Your task to perform on an android device: toggle improve location accuracy Image 0: 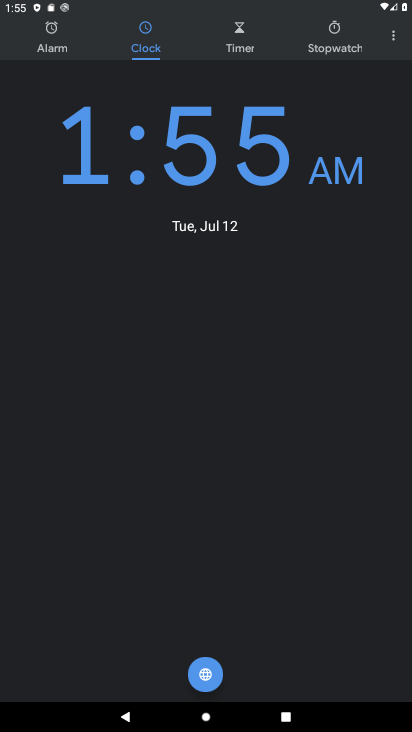
Step 0: press home button
Your task to perform on an android device: toggle improve location accuracy Image 1: 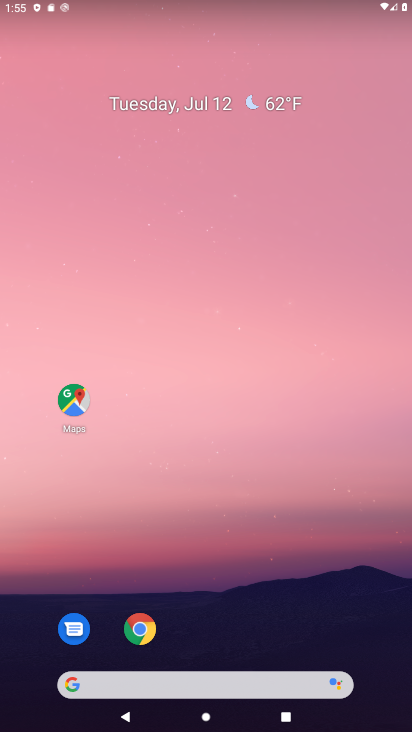
Step 1: drag from (210, 652) to (179, 33)
Your task to perform on an android device: toggle improve location accuracy Image 2: 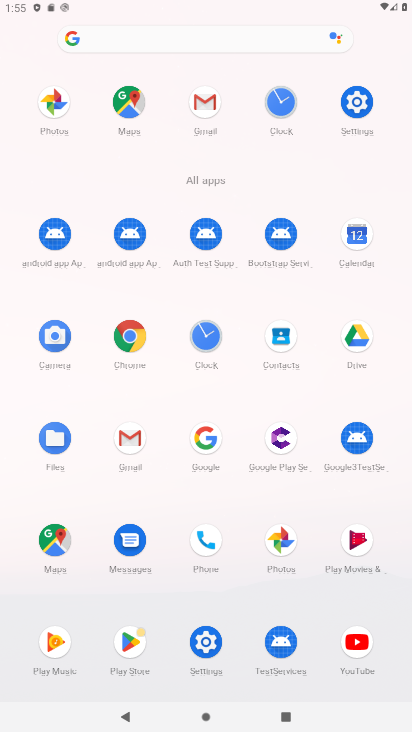
Step 2: click (356, 96)
Your task to perform on an android device: toggle improve location accuracy Image 3: 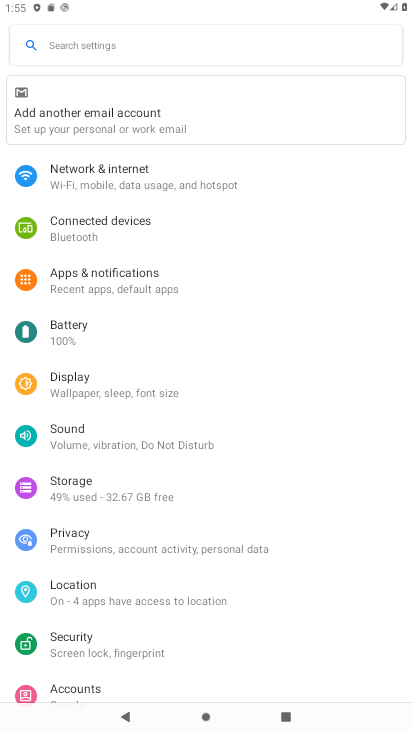
Step 3: click (108, 585)
Your task to perform on an android device: toggle improve location accuracy Image 4: 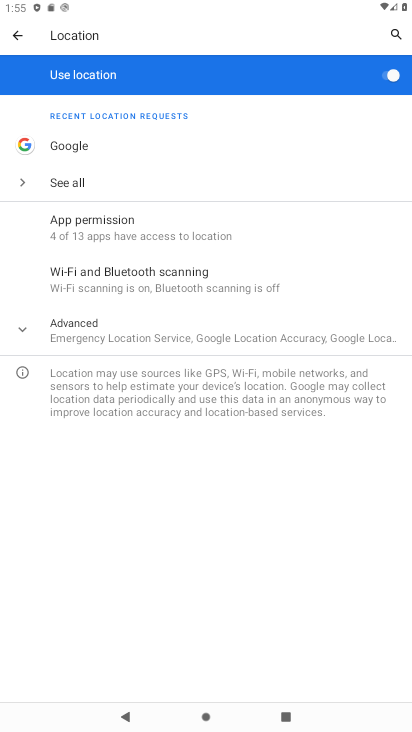
Step 4: click (26, 330)
Your task to perform on an android device: toggle improve location accuracy Image 5: 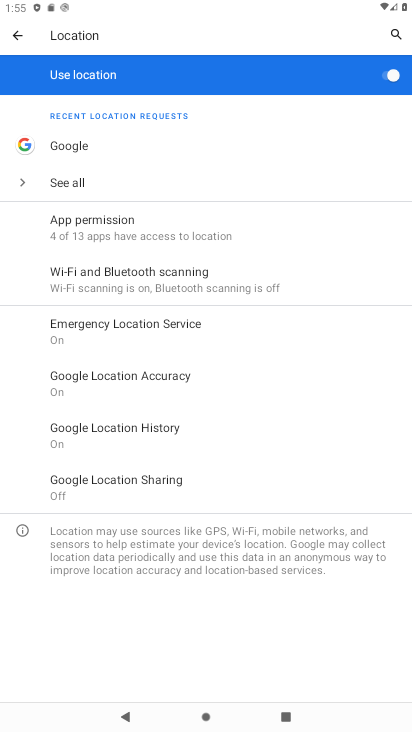
Step 5: click (149, 383)
Your task to perform on an android device: toggle improve location accuracy Image 6: 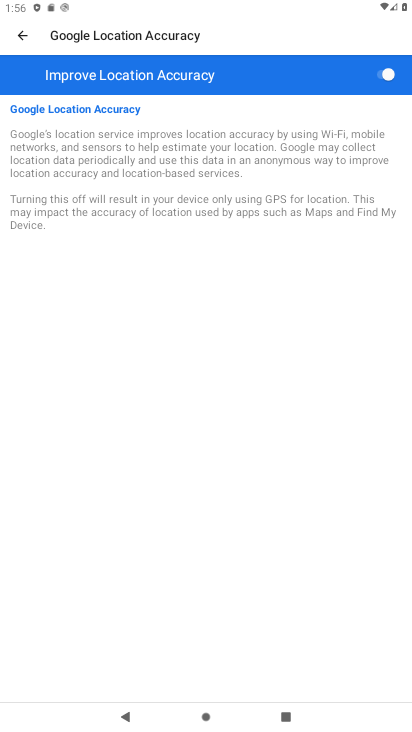
Step 6: task complete